Your task to perform on an android device: Open internet settings Image 0: 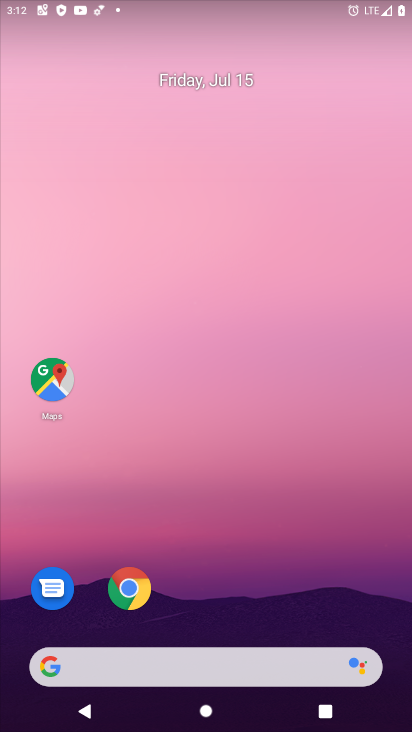
Step 0: drag from (196, 669) to (182, 223)
Your task to perform on an android device: Open internet settings Image 1: 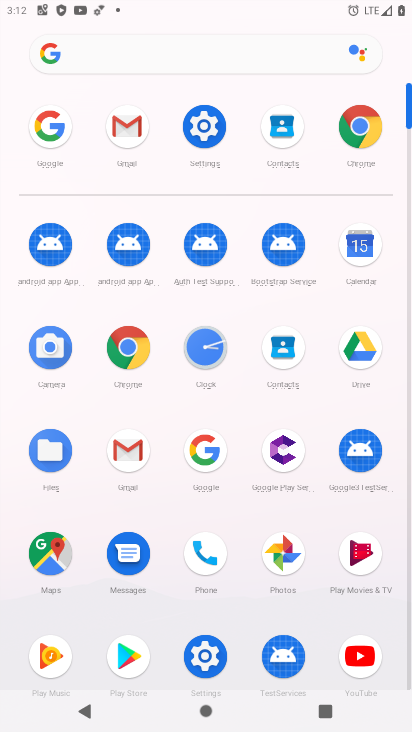
Step 1: click (207, 131)
Your task to perform on an android device: Open internet settings Image 2: 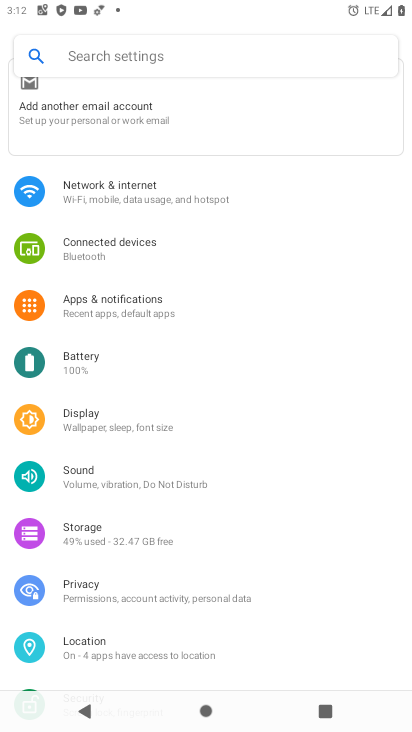
Step 2: click (156, 188)
Your task to perform on an android device: Open internet settings Image 3: 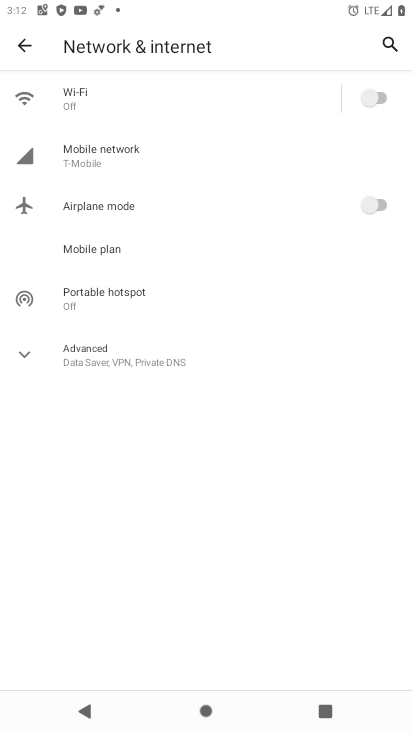
Step 3: task complete